Your task to perform on an android device: Go to display settings Image 0: 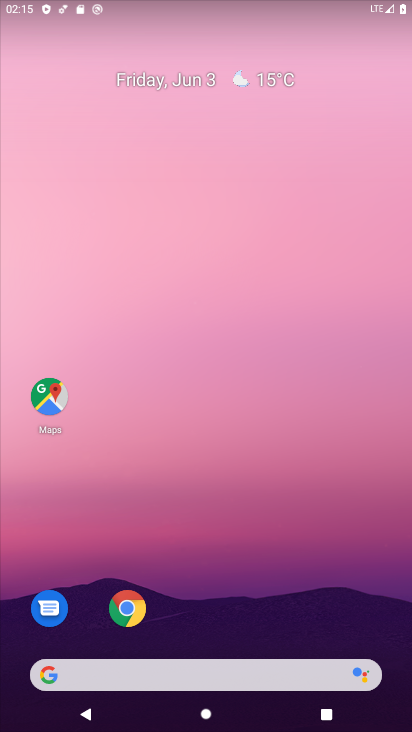
Step 0: drag from (361, 586) to (298, 212)
Your task to perform on an android device: Go to display settings Image 1: 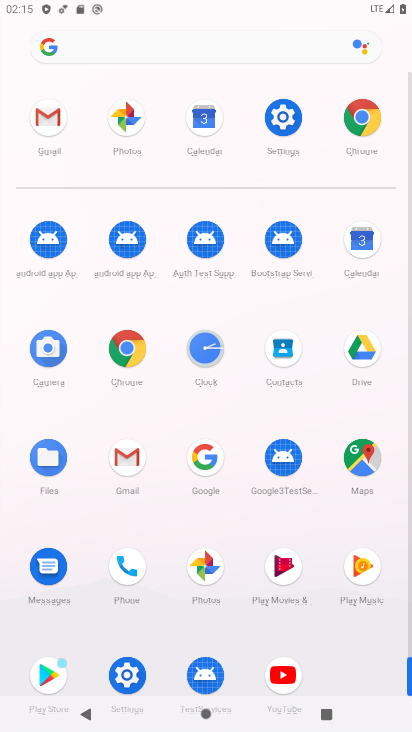
Step 1: click (282, 120)
Your task to perform on an android device: Go to display settings Image 2: 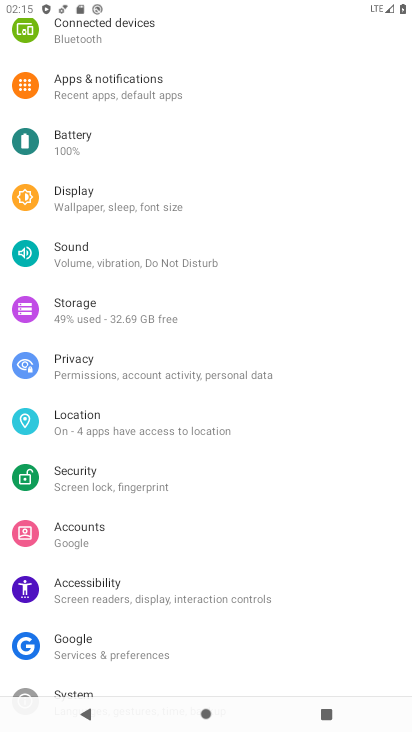
Step 2: click (97, 197)
Your task to perform on an android device: Go to display settings Image 3: 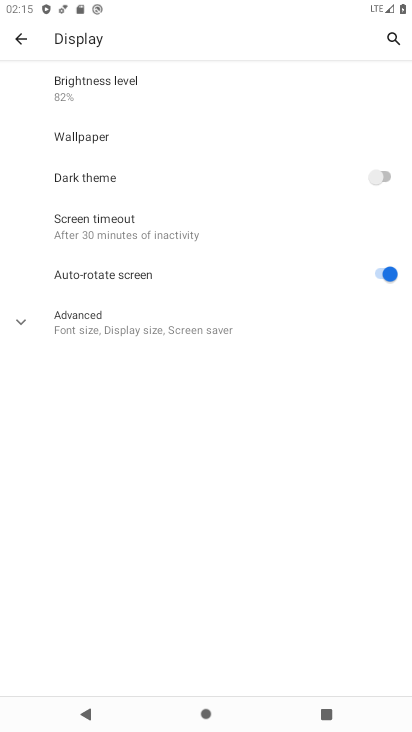
Step 3: task complete